Your task to perform on an android device: Search for flights from NYC to San Francisco Image 0: 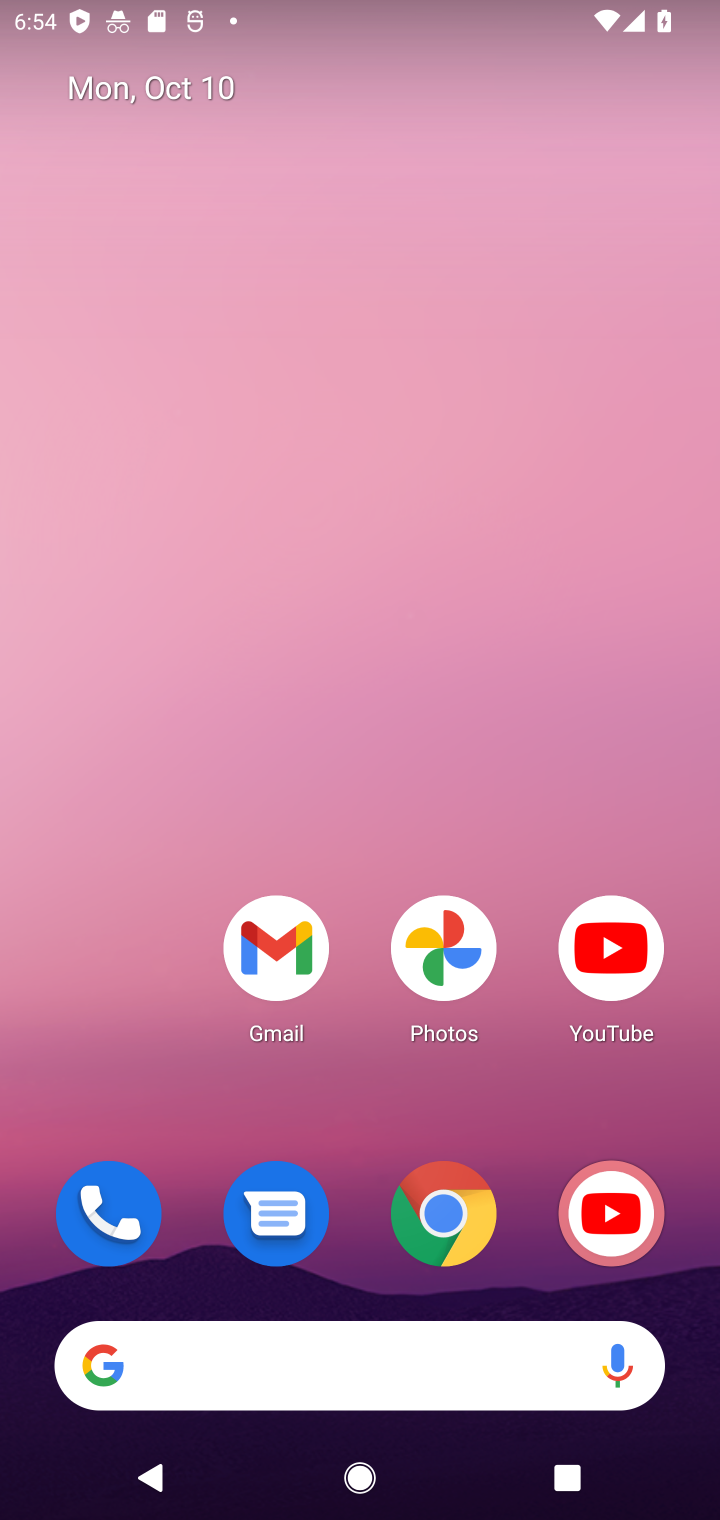
Step 0: click (315, 1351)
Your task to perform on an android device: Search for flights from NYC to San Francisco Image 1: 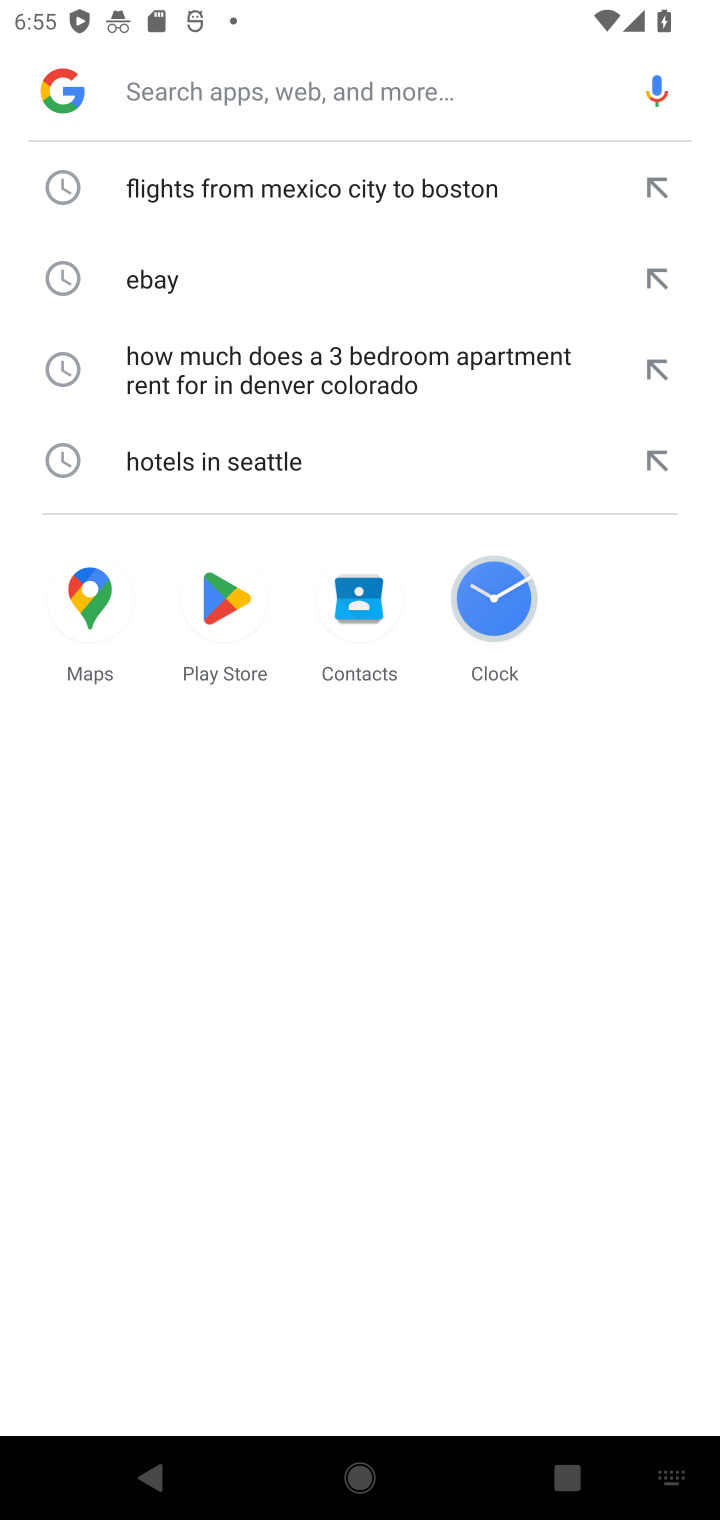
Step 1: drag from (231, 93) to (308, 120)
Your task to perform on an android device: Search for flights from NYC to San Francisco Image 2: 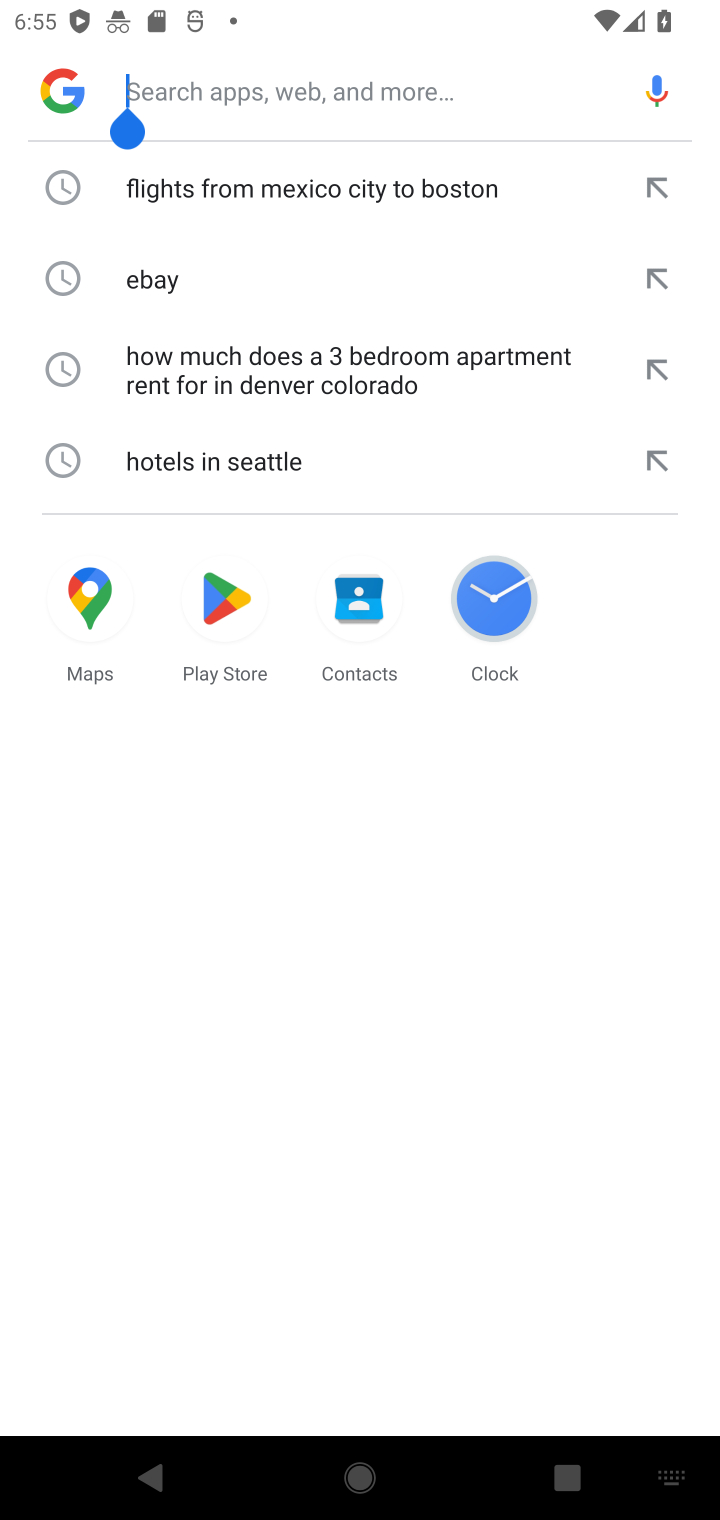
Step 2: type "flights from NYC to San Francisco"
Your task to perform on an android device: Search for flights from NYC to San Francisco Image 3: 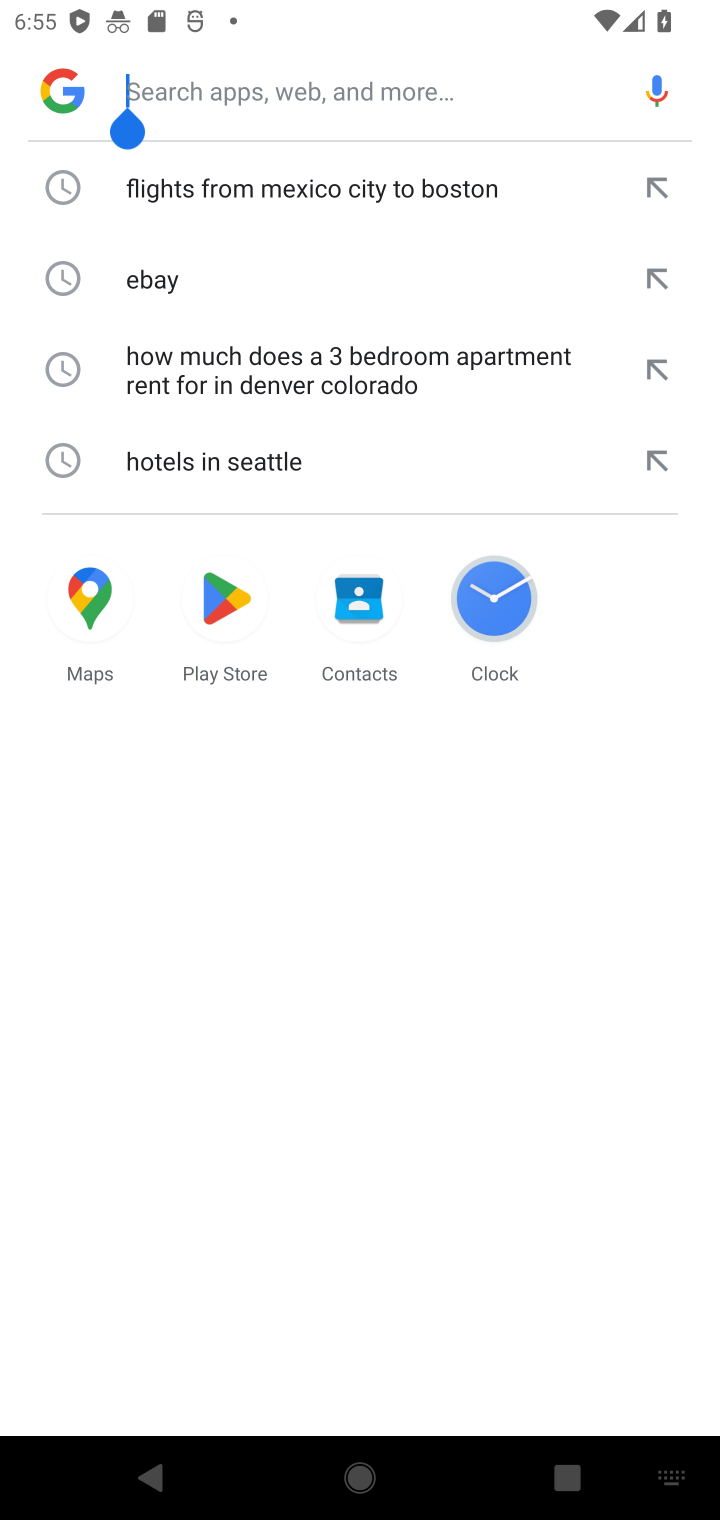
Step 3: click (334, 970)
Your task to perform on an android device: Search for flights from NYC to San Francisco Image 4: 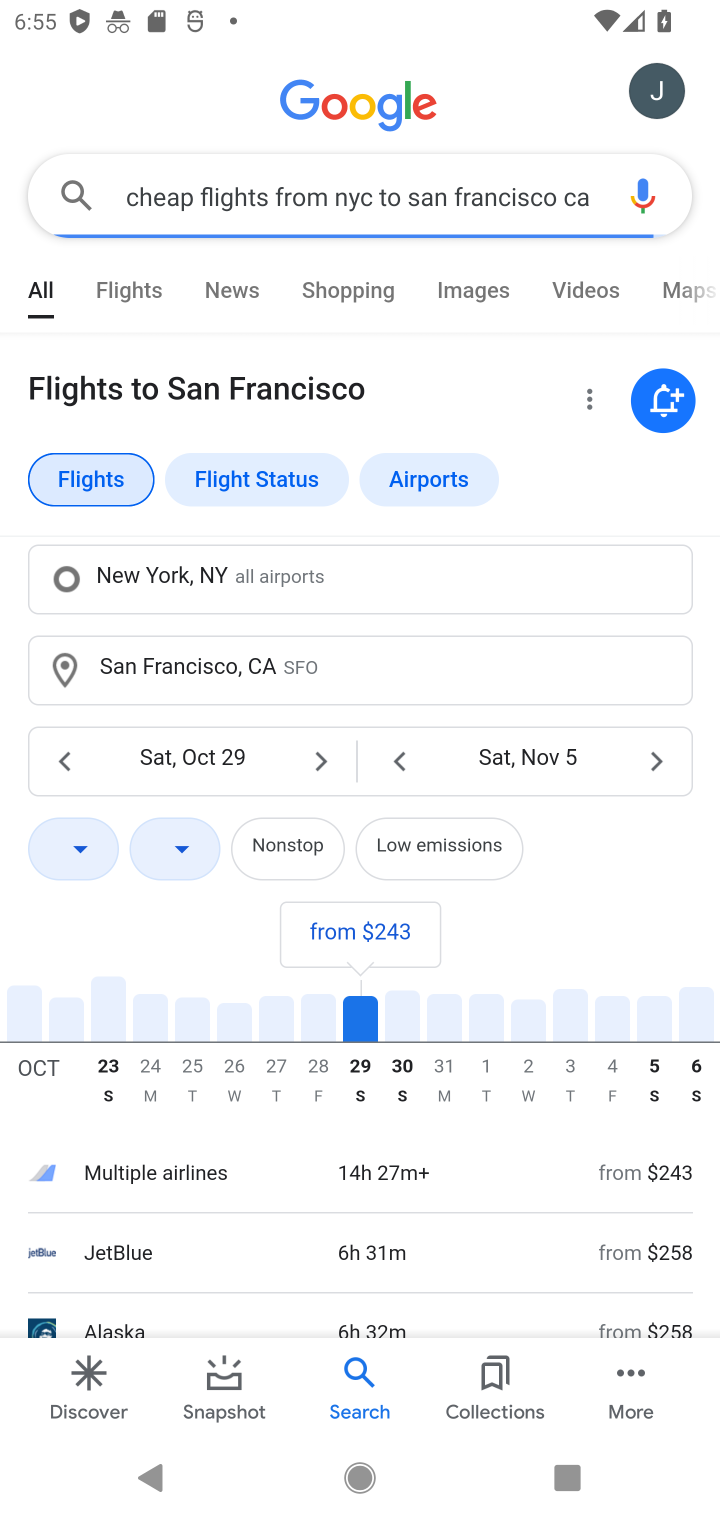
Step 4: click (329, 197)
Your task to perform on an android device: Search for flights from NYC to San Francisco Image 5: 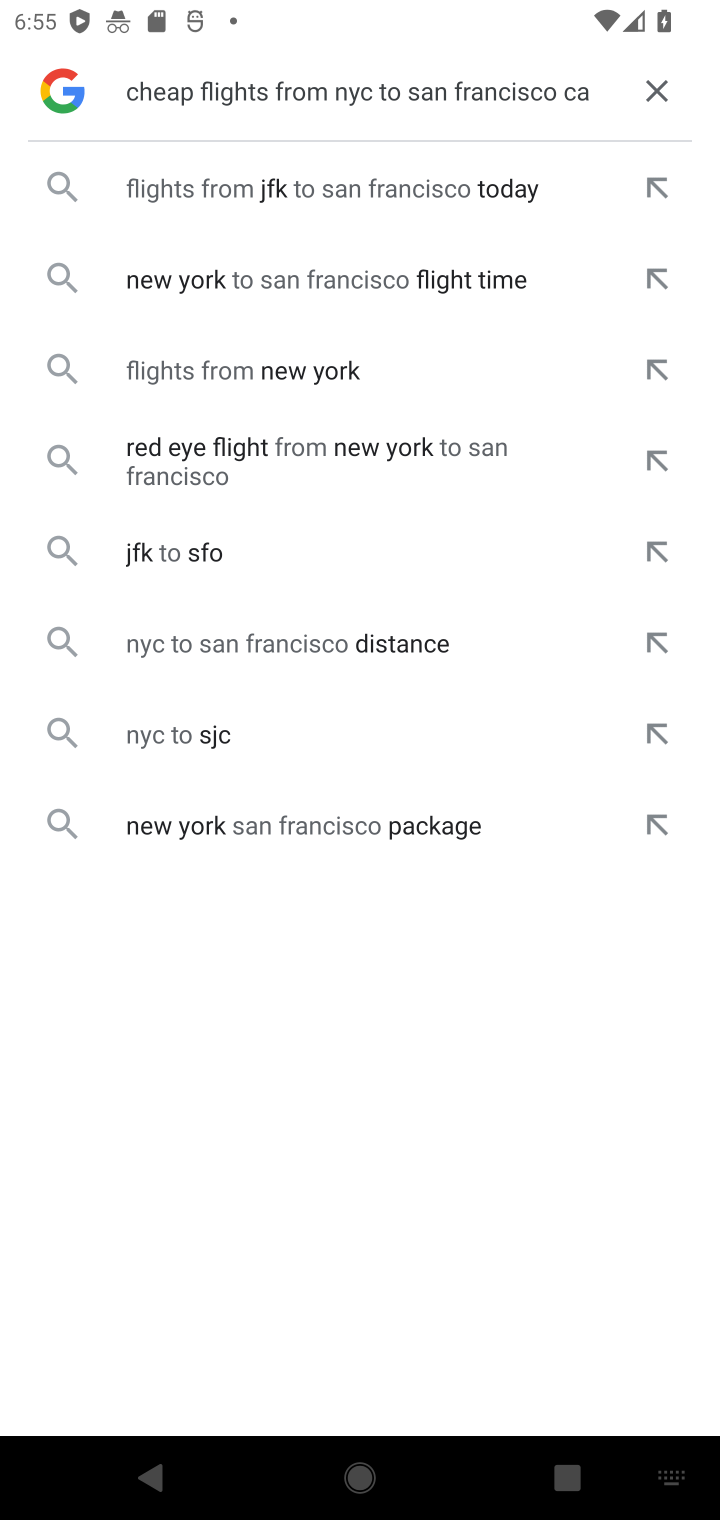
Step 5: task complete